Your task to perform on an android device: open a bookmark in the chrome app Image 0: 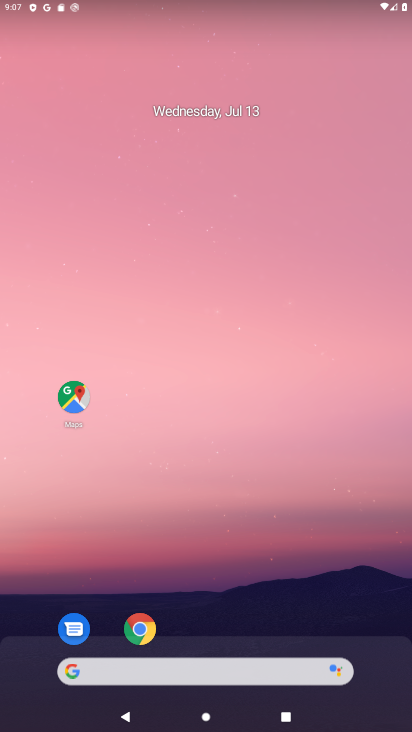
Step 0: click (128, 634)
Your task to perform on an android device: open a bookmark in the chrome app Image 1: 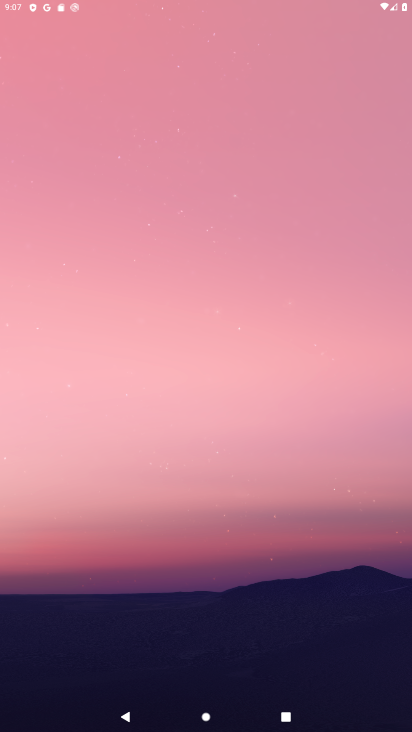
Step 1: click (128, 634)
Your task to perform on an android device: open a bookmark in the chrome app Image 2: 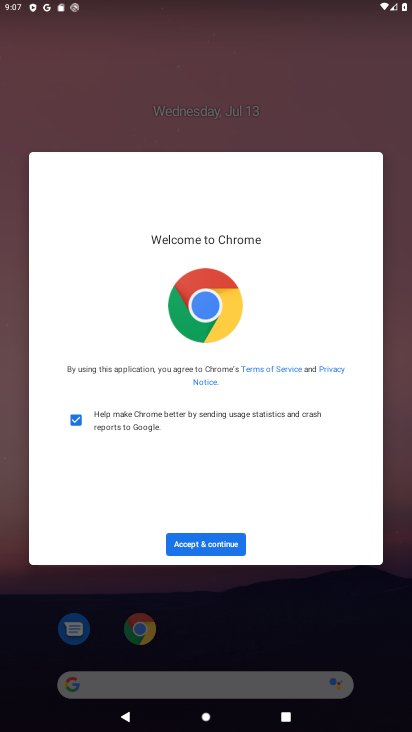
Step 2: click (233, 543)
Your task to perform on an android device: open a bookmark in the chrome app Image 3: 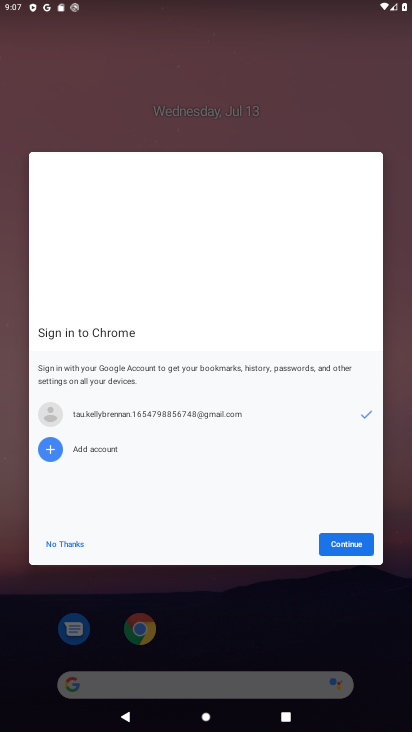
Step 3: click (352, 551)
Your task to perform on an android device: open a bookmark in the chrome app Image 4: 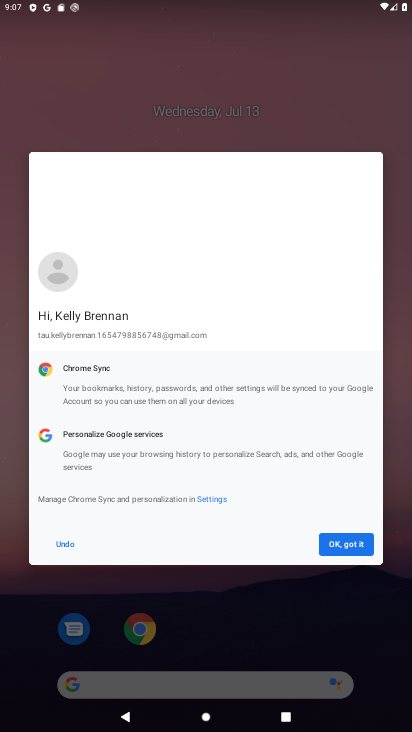
Step 4: click (352, 551)
Your task to perform on an android device: open a bookmark in the chrome app Image 5: 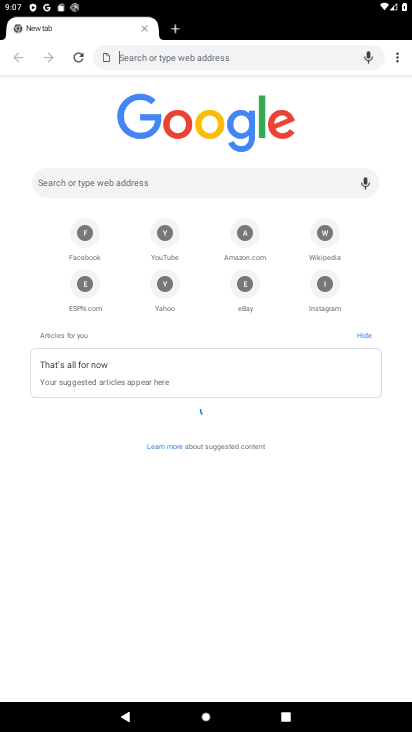
Step 5: click (393, 60)
Your task to perform on an android device: open a bookmark in the chrome app Image 6: 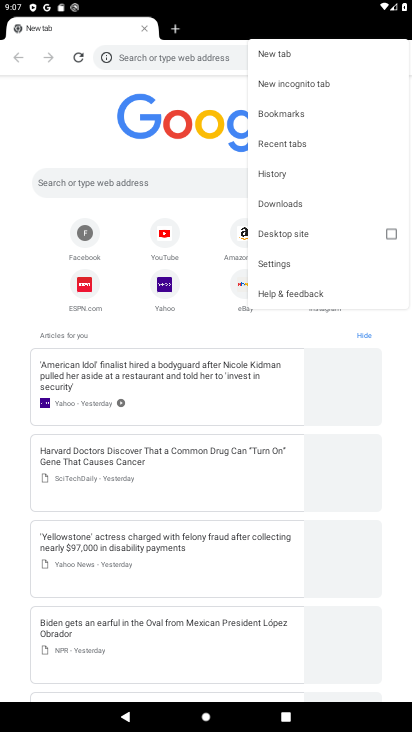
Step 6: click (305, 114)
Your task to perform on an android device: open a bookmark in the chrome app Image 7: 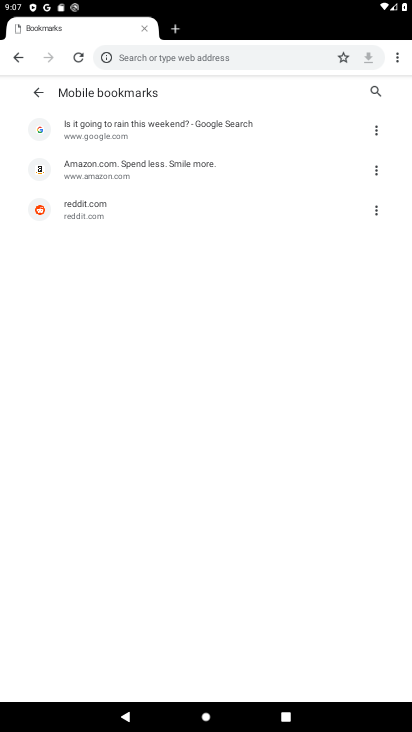
Step 7: click (214, 137)
Your task to perform on an android device: open a bookmark in the chrome app Image 8: 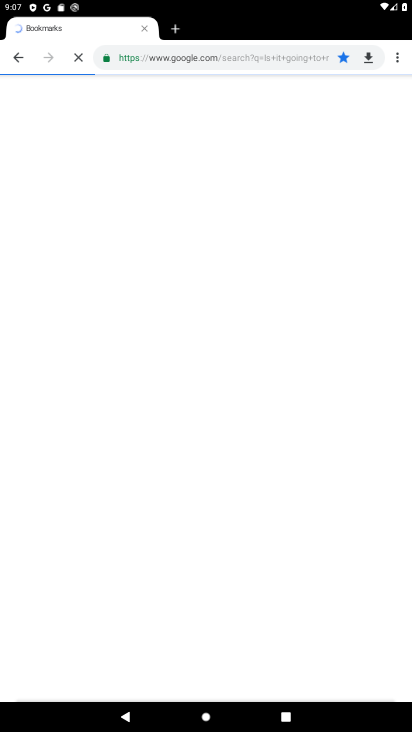
Step 8: task complete